Your task to perform on an android device: move an email to a new category in the gmail app Image 0: 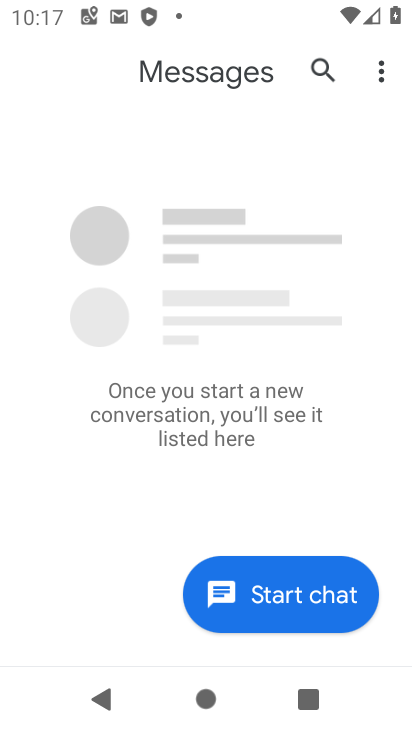
Step 0: press home button
Your task to perform on an android device: move an email to a new category in the gmail app Image 1: 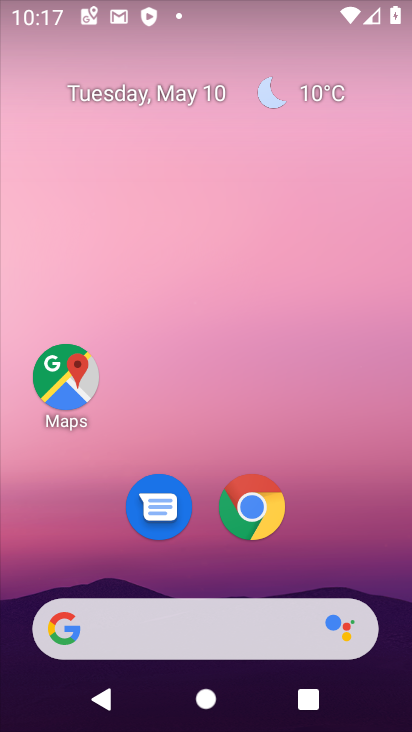
Step 1: drag from (297, 477) to (305, 186)
Your task to perform on an android device: move an email to a new category in the gmail app Image 2: 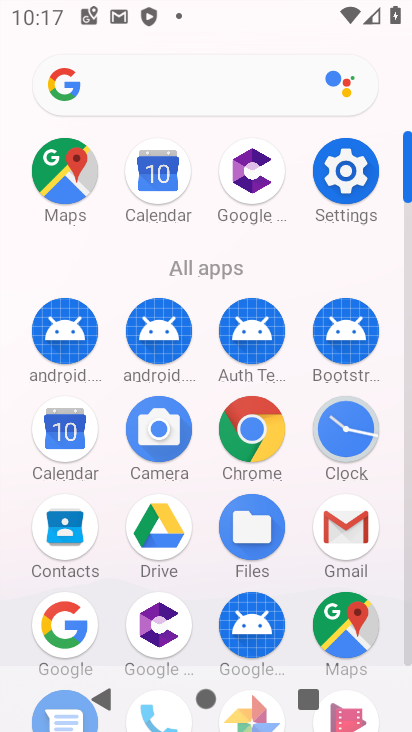
Step 2: click (363, 542)
Your task to perform on an android device: move an email to a new category in the gmail app Image 3: 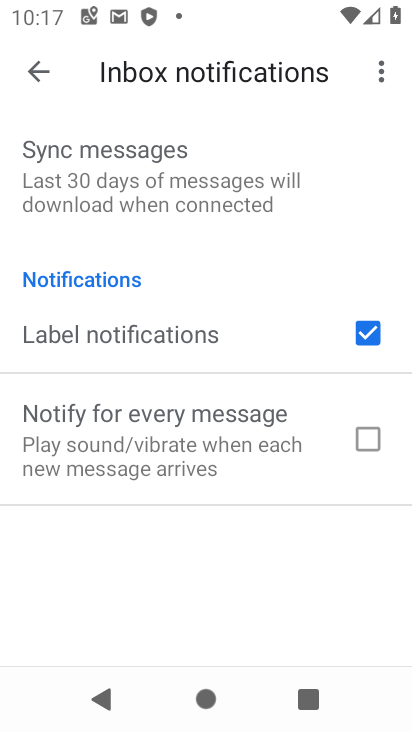
Step 3: press back button
Your task to perform on an android device: move an email to a new category in the gmail app Image 4: 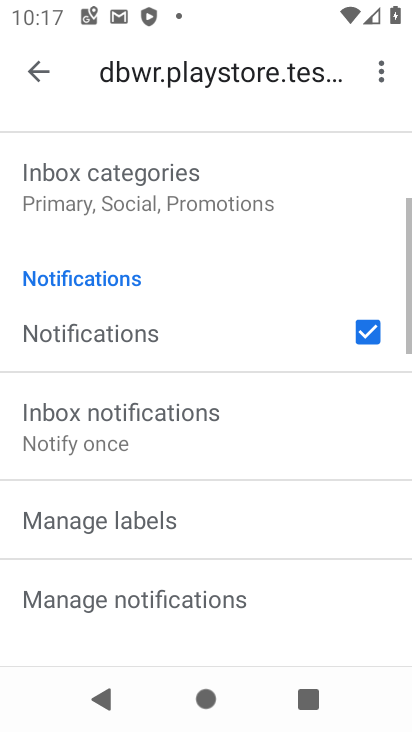
Step 4: press back button
Your task to perform on an android device: move an email to a new category in the gmail app Image 5: 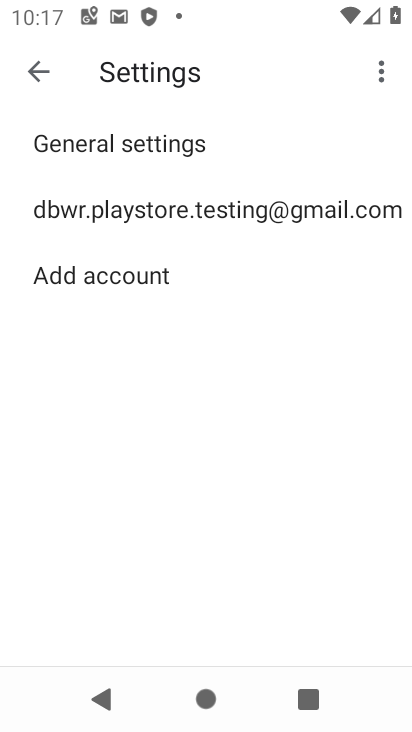
Step 5: press back button
Your task to perform on an android device: move an email to a new category in the gmail app Image 6: 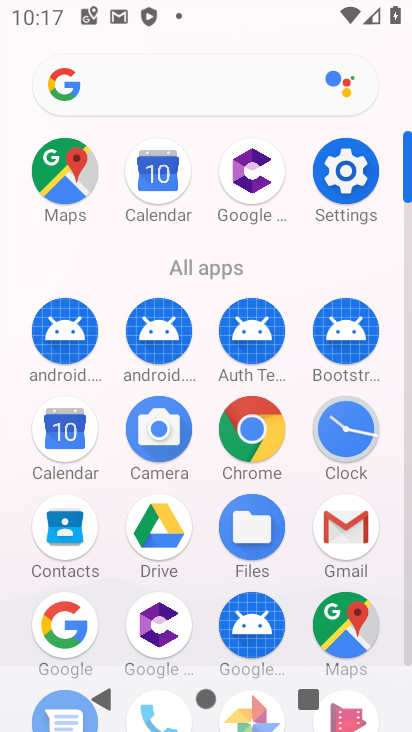
Step 6: click (349, 555)
Your task to perform on an android device: move an email to a new category in the gmail app Image 7: 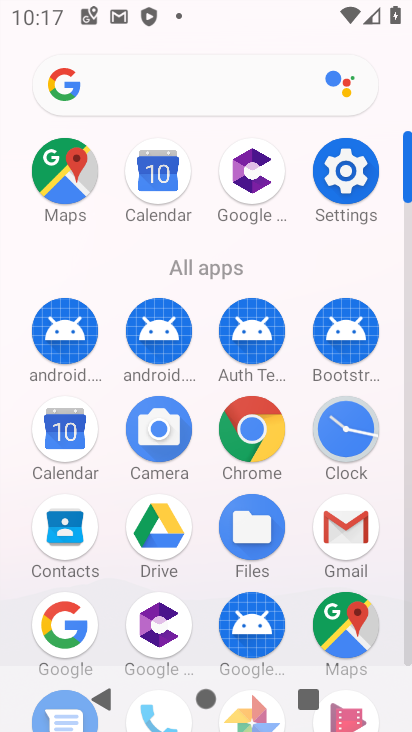
Step 7: click (344, 544)
Your task to perform on an android device: move an email to a new category in the gmail app Image 8: 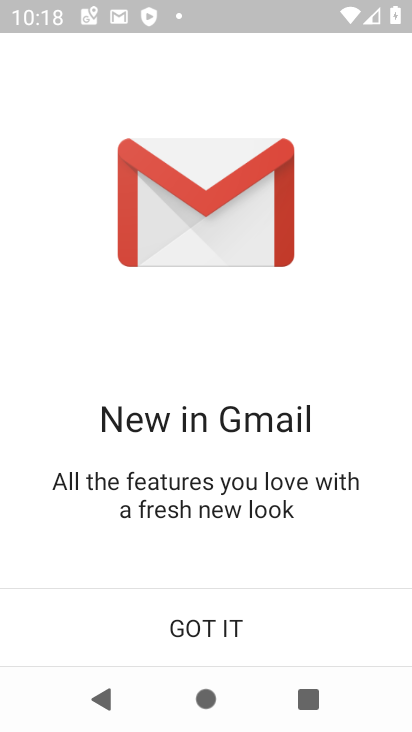
Step 8: click (223, 643)
Your task to perform on an android device: move an email to a new category in the gmail app Image 9: 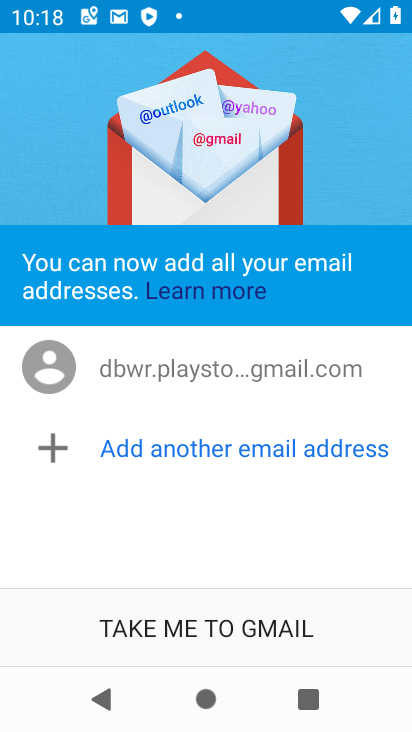
Step 9: click (237, 628)
Your task to perform on an android device: move an email to a new category in the gmail app Image 10: 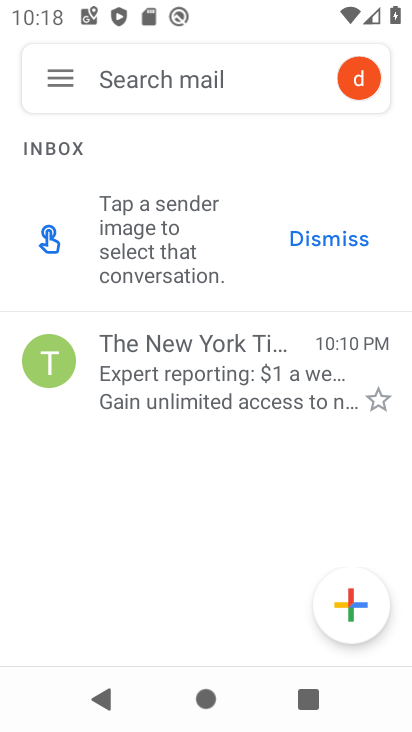
Step 10: click (48, 362)
Your task to perform on an android device: move an email to a new category in the gmail app Image 11: 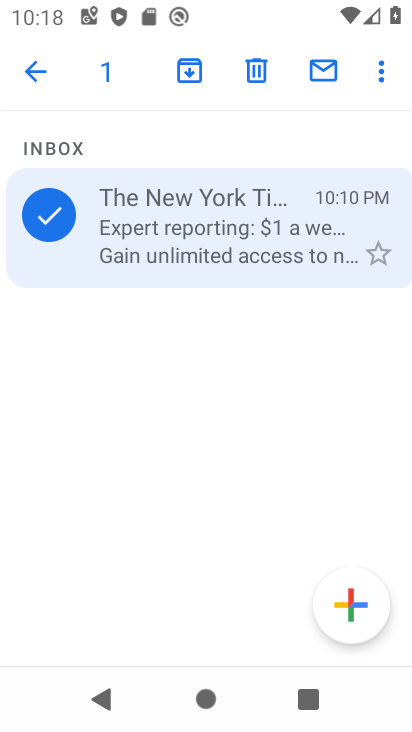
Step 11: click (381, 81)
Your task to perform on an android device: move an email to a new category in the gmail app Image 12: 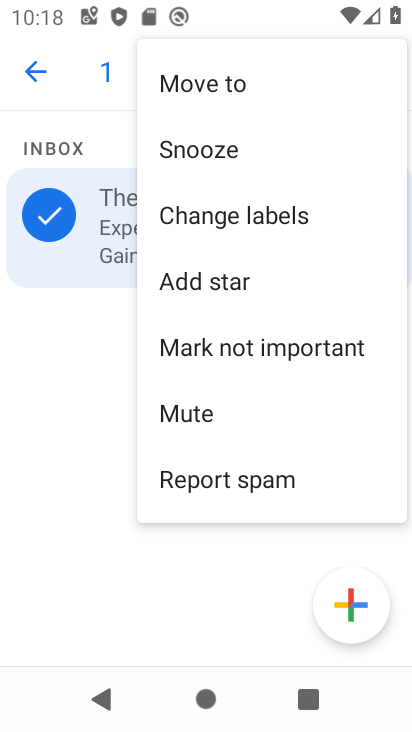
Step 12: click (262, 350)
Your task to perform on an android device: move an email to a new category in the gmail app Image 13: 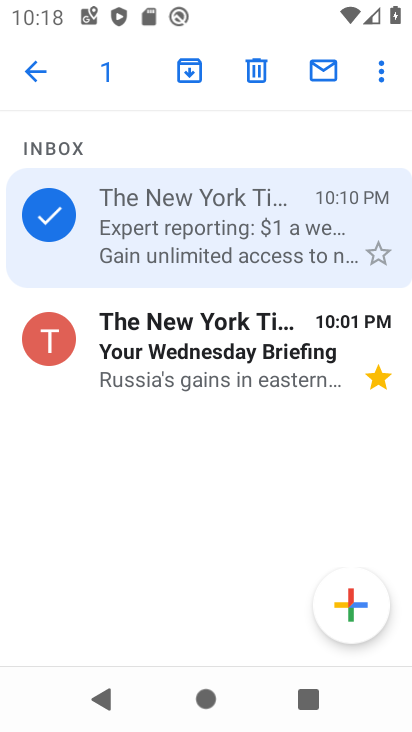
Step 13: task complete